Your task to perform on an android device: add a label to a message in the gmail app Image 0: 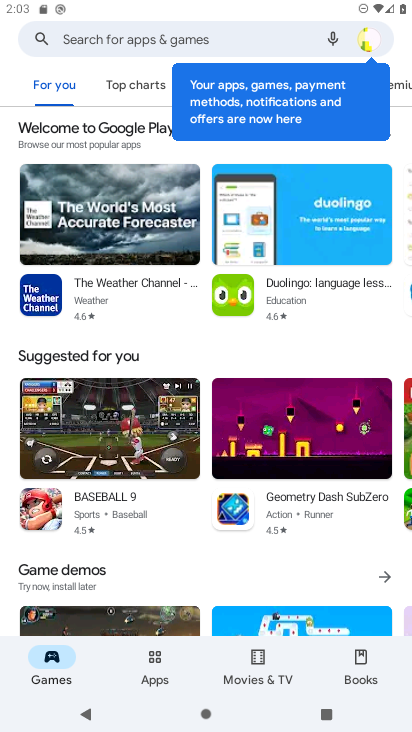
Step 0: press home button
Your task to perform on an android device: add a label to a message in the gmail app Image 1: 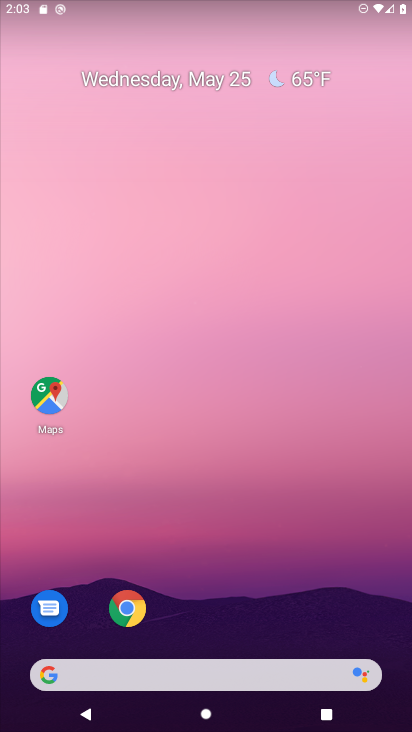
Step 1: drag from (357, 617) to (320, 34)
Your task to perform on an android device: add a label to a message in the gmail app Image 2: 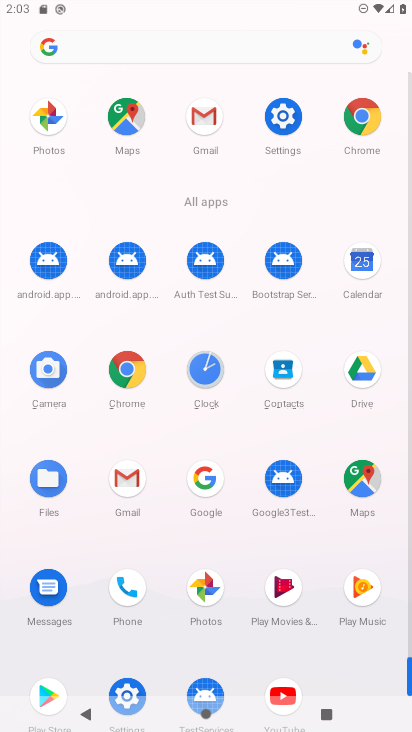
Step 2: click (127, 480)
Your task to perform on an android device: add a label to a message in the gmail app Image 3: 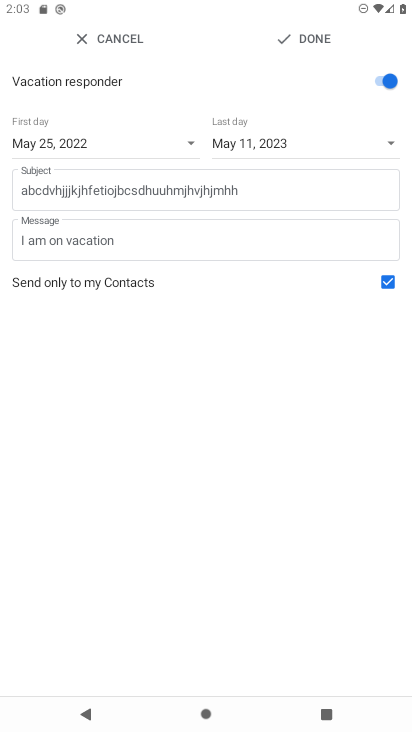
Step 3: press home button
Your task to perform on an android device: add a label to a message in the gmail app Image 4: 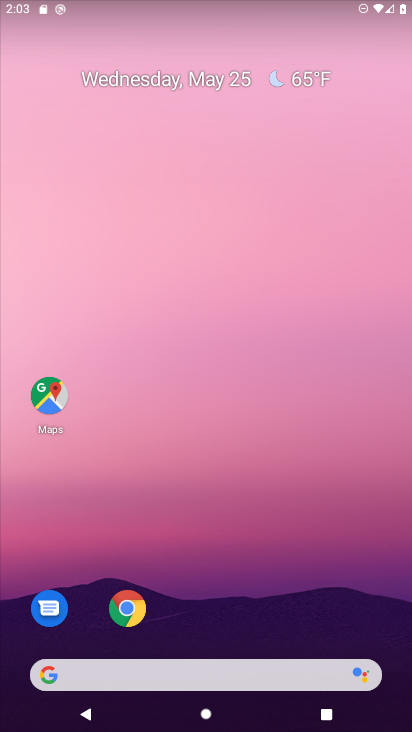
Step 4: drag from (385, 636) to (238, 166)
Your task to perform on an android device: add a label to a message in the gmail app Image 5: 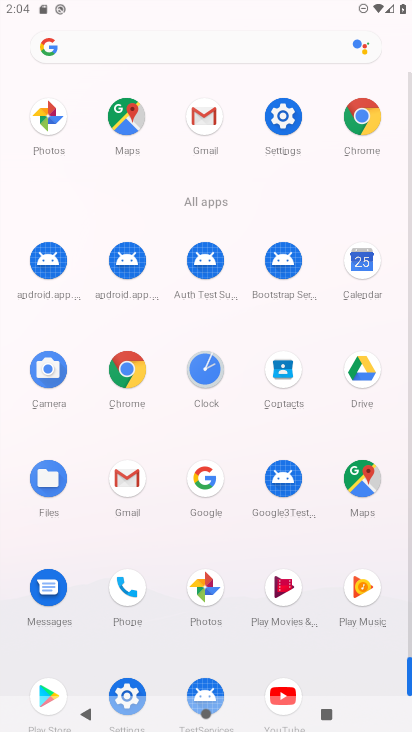
Step 5: click (124, 484)
Your task to perform on an android device: add a label to a message in the gmail app Image 6: 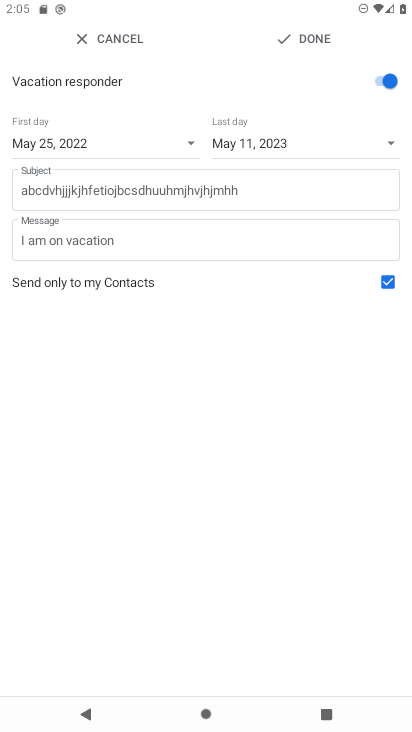
Step 6: press home button
Your task to perform on an android device: add a label to a message in the gmail app Image 7: 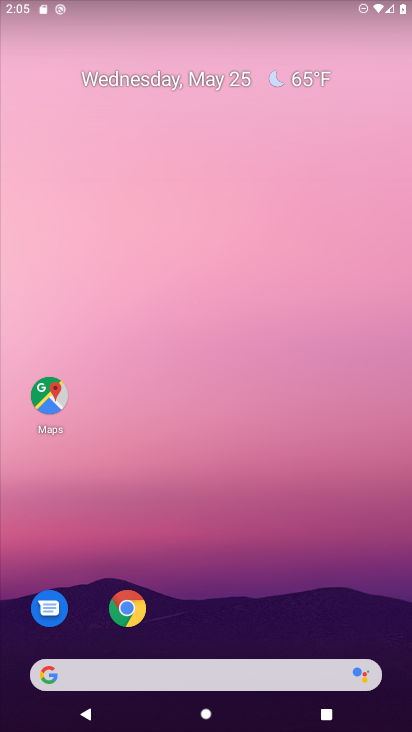
Step 7: drag from (359, 624) to (281, 40)
Your task to perform on an android device: add a label to a message in the gmail app Image 8: 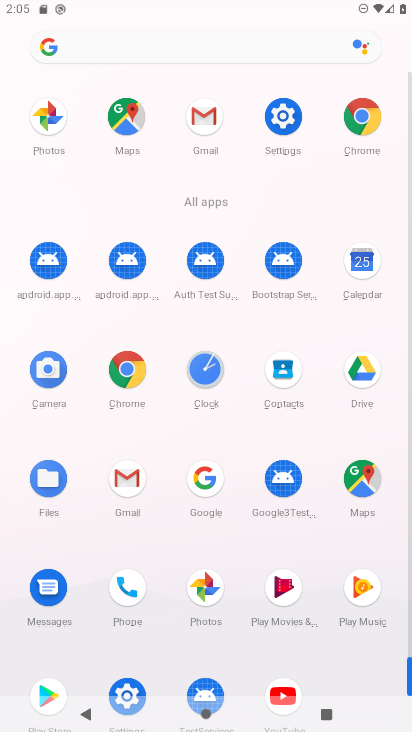
Step 8: click (122, 474)
Your task to perform on an android device: add a label to a message in the gmail app Image 9: 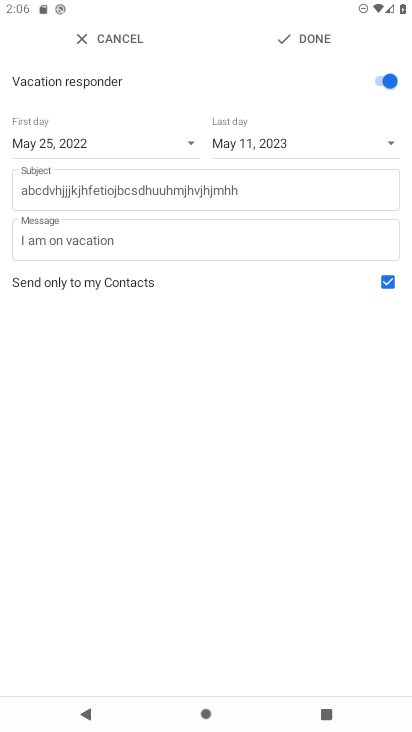
Step 9: click (75, 38)
Your task to perform on an android device: add a label to a message in the gmail app Image 10: 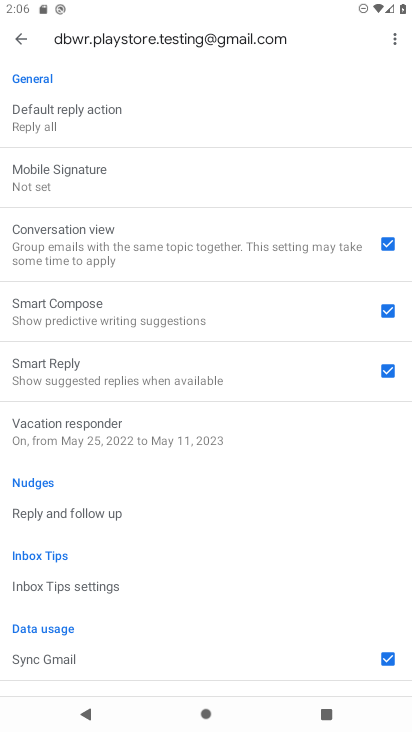
Step 10: drag from (316, 231) to (302, 439)
Your task to perform on an android device: add a label to a message in the gmail app Image 11: 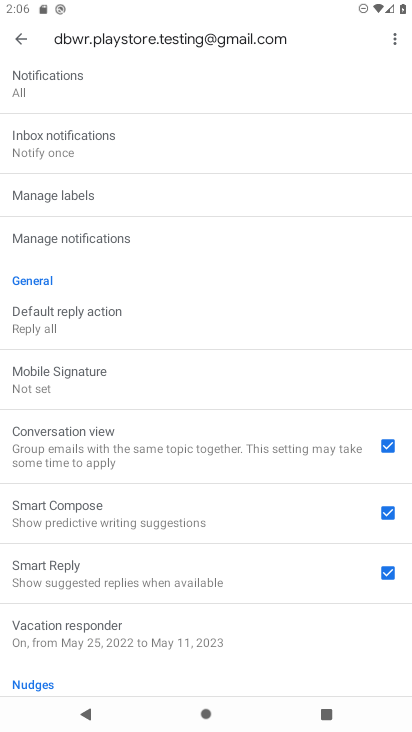
Step 11: drag from (288, 174) to (277, 323)
Your task to perform on an android device: add a label to a message in the gmail app Image 12: 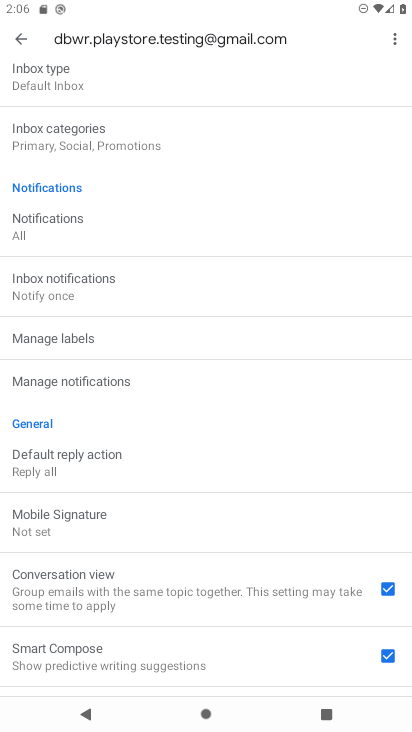
Step 12: press back button
Your task to perform on an android device: add a label to a message in the gmail app Image 13: 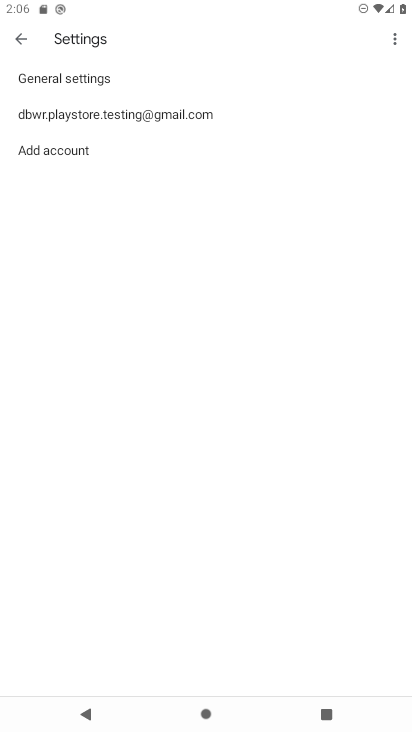
Step 13: press back button
Your task to perform on an android device: add a label to a message in the gmail app Image 14: 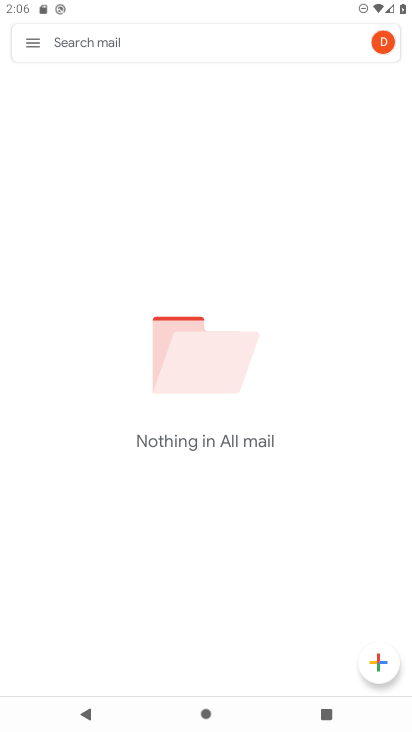
Step 14: click (32, 41)
Your task to perform on an android device: add a label to a message in the gmail app Image 15: 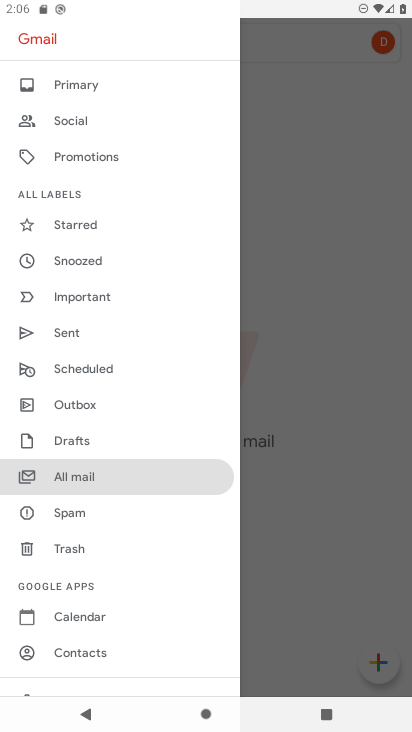
Step 15: click (86, 474)
Your task to perform on an android device: add a label to a message in the gmail app Image 16: 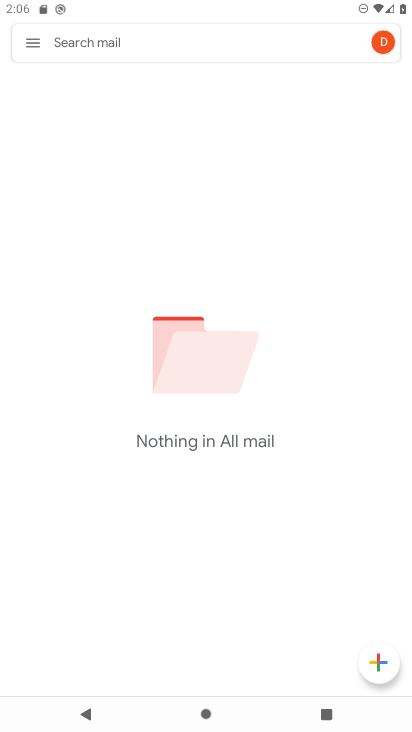
Step 16: task complete